Your task to perform on an android device: Open internet settings Image 0: 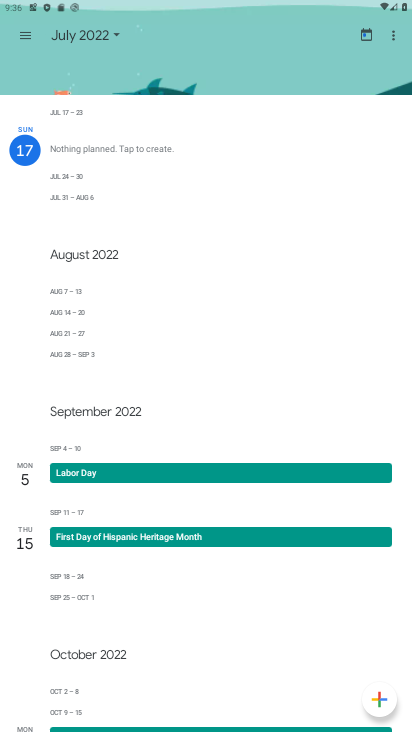
Step 0: drag from (181, 221) to (230, 701)
Your task to perform on an android device: Open internet settings Image 1: 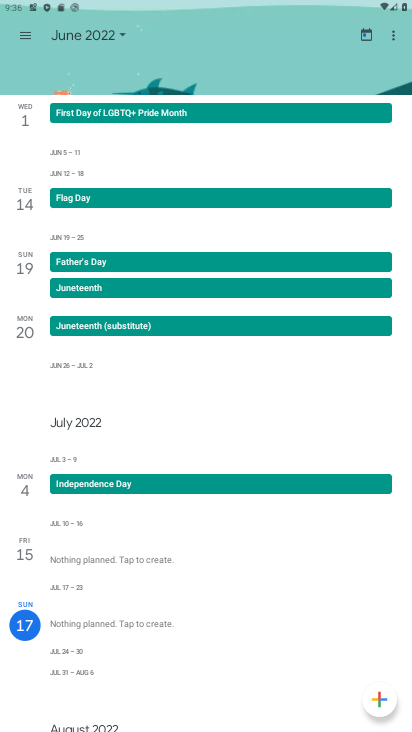
Step 1: drag from (128, 14) to (199, 625)
Your task to perform on an android device: Open internet settings Image 2: 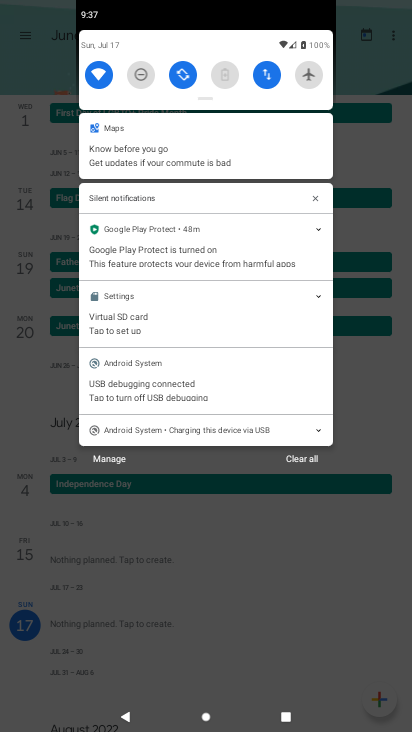
Step 2: click (264, 96)
Your task to perform on an android device: Open internet settings Image 3: 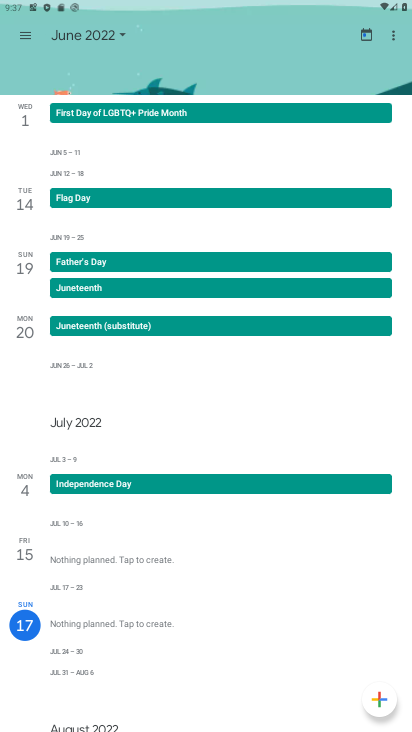
Step 3: drag from (171, 8) to (250, 640)
Your task to perform on an android device: Open internet settings Image 4: 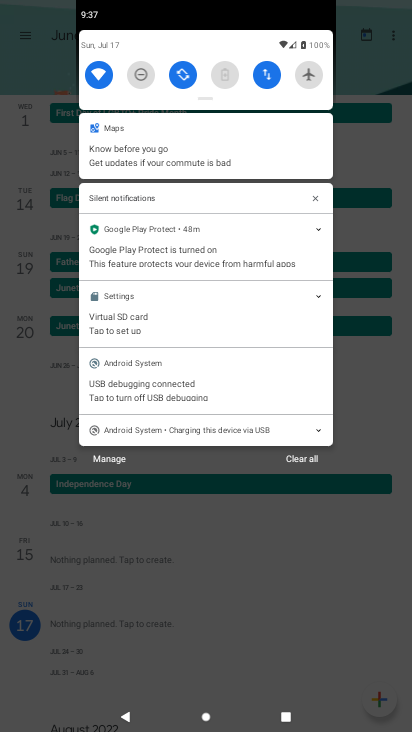
Step 4: click (262, 65)
Your task to perform on an android device: Open internet settings Image 5: 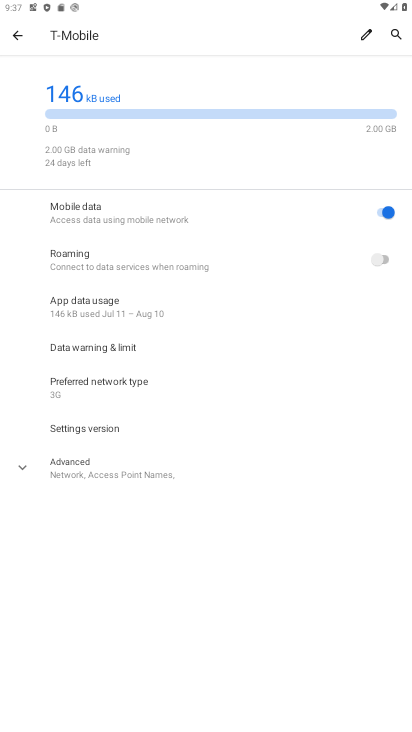
Step 5: task complete